Your task to perform on an android device: turn pop-ups on in chrome Image 0: 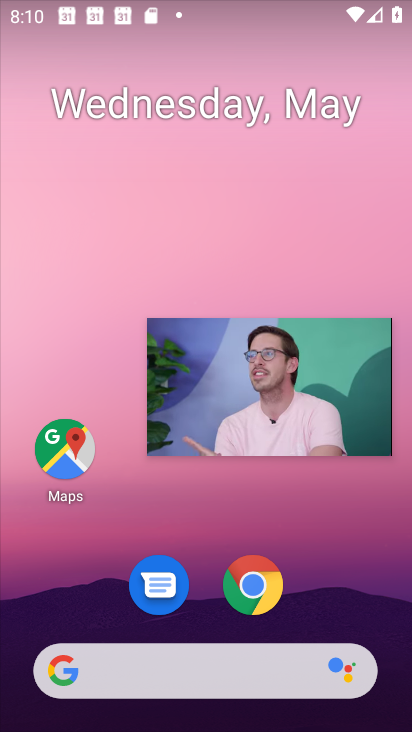
Step 0: drag from (294, 359) to (270, 730)
Your task to perform on an android device: turn pop-ups on in chrome Image 1: 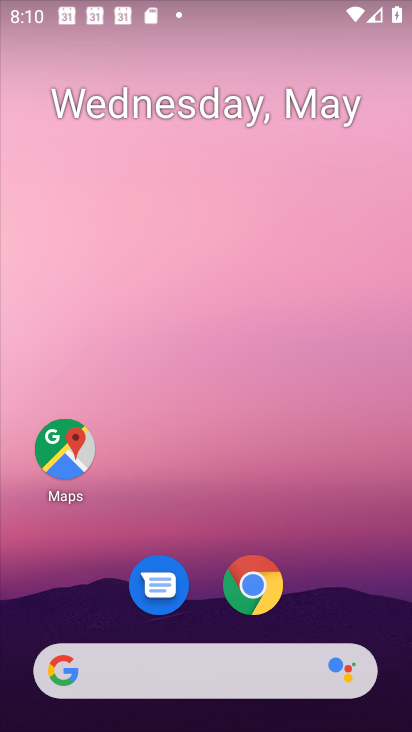
Step 1: click (254, 584)
Your task to perform on an android device: turn pop-ups on in chrome Image 2: 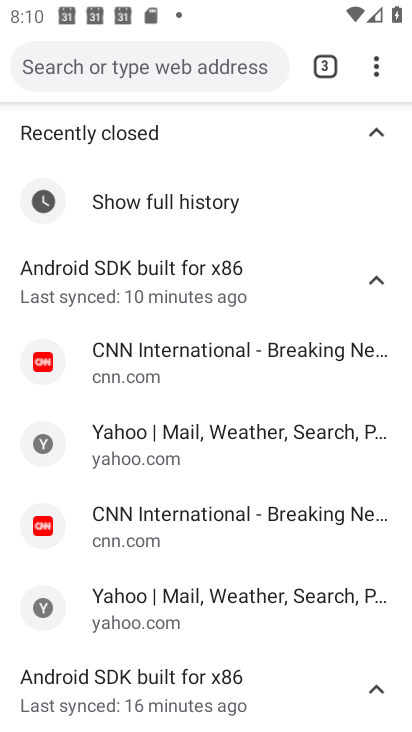
Step 2: click (376, 60)
Your task to perform on an android device: turn pop-ups on in chrome Image 3: 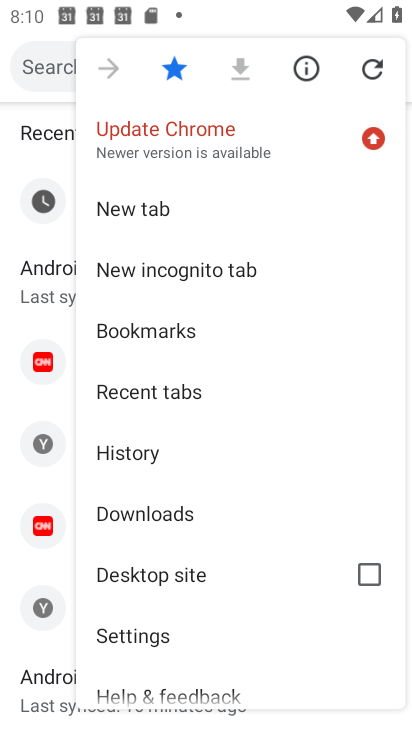
Step 3: click (169, 631)
Your task to perform on an android device: turn pop-ups on in chrome Image 4: 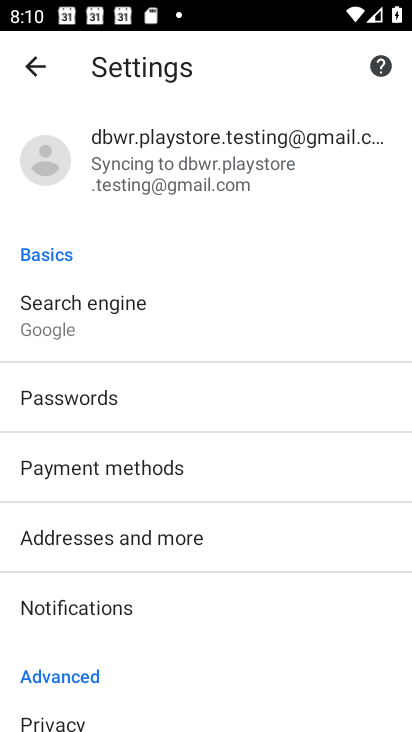
Step 4: drag from (259, 624) to (233, 253)
Your task to perform on an android device: turn pop-ups on in chrome Image 5: 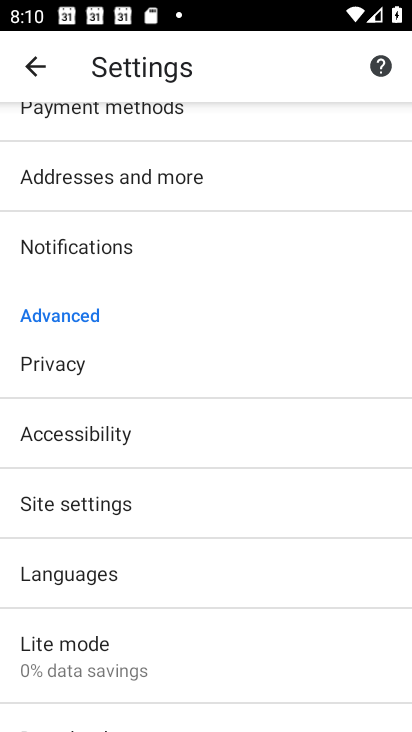
Step 5: click (110, 487)
Your task to perform on an android device: turn pop-ups on in chrome Image 6: 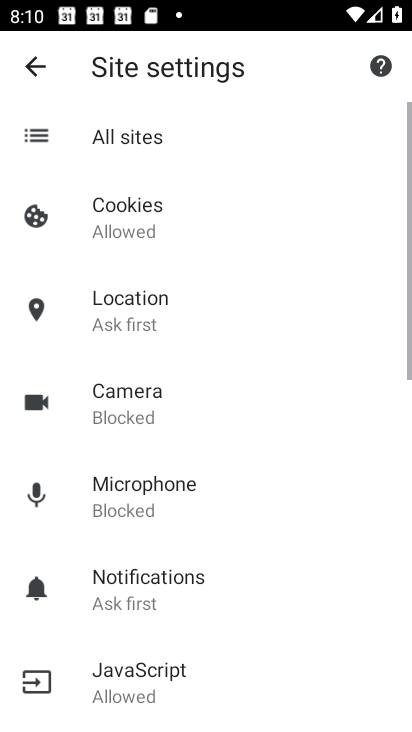
Step 6: drag from (259, 592) to (298, 231)
Your task to perform on an android device: turn pop-ups on in chrome Image 7: 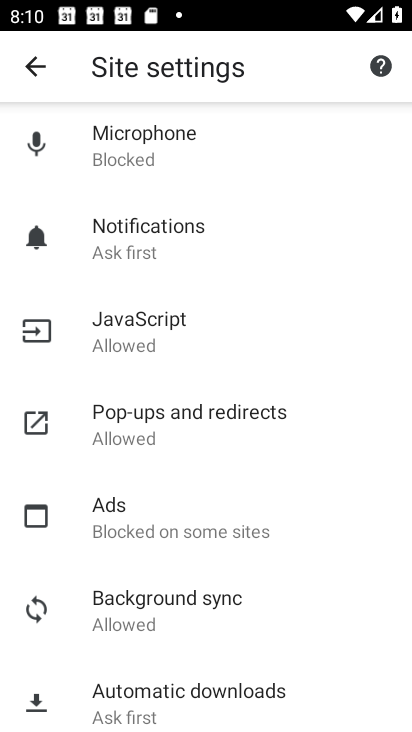
Step 7: click (209, 411)
Your task to perform on an android device: turn pop-ups on in chrome Image 8: 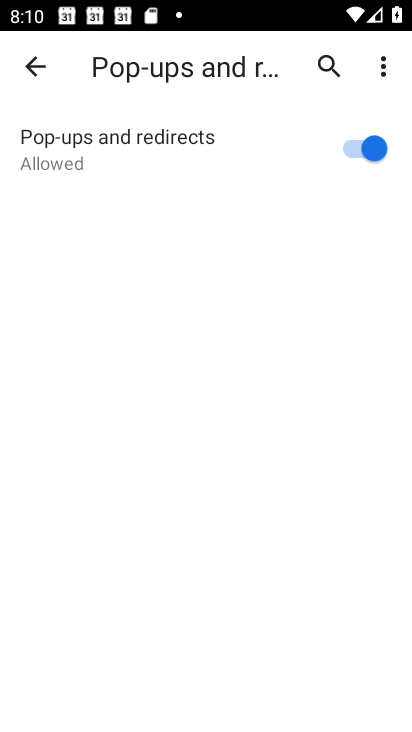
Step 8: task complete